Your task to perform on an android device: Show me recent news Image 0: 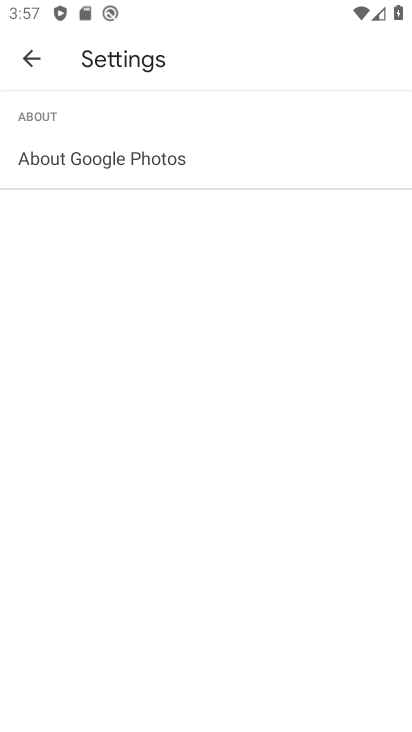
Step 0: press home button
Your task to perform on an android device: Show me recent news Image 1: 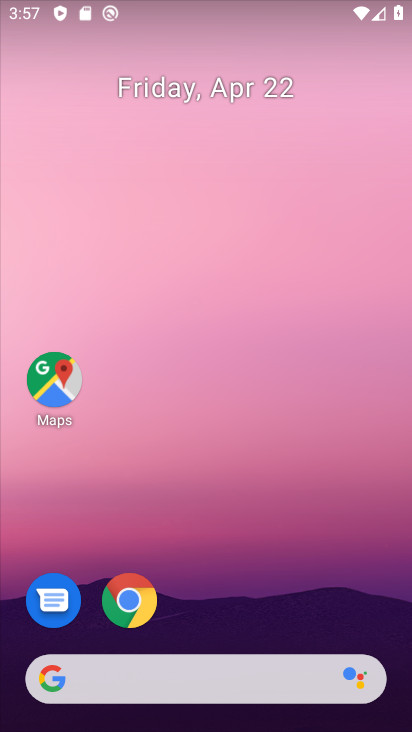
Step 1: drag from (237, 588) to (226, 61)
Your task to perform on an android device: Show me recent news Image 2: 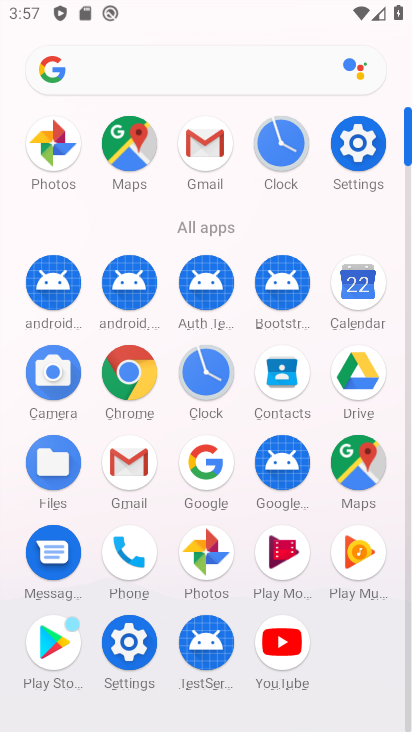
Step 2: click (52, 142)
Your task to perform on an android device: Show me recent news Image 3: 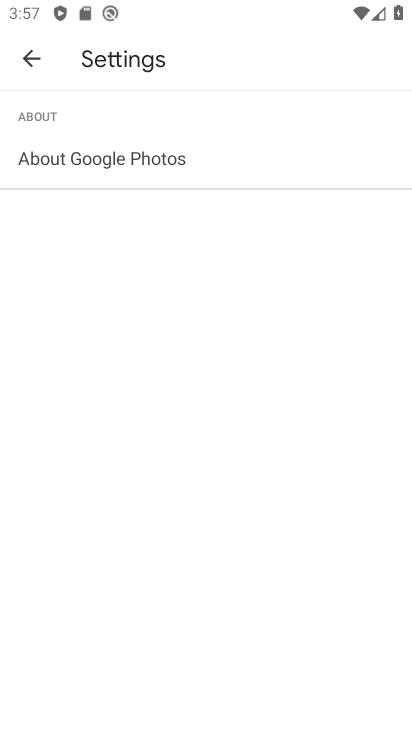
Step 3: press back button
Your task to perform on an android device: Show me recent news Image 4: 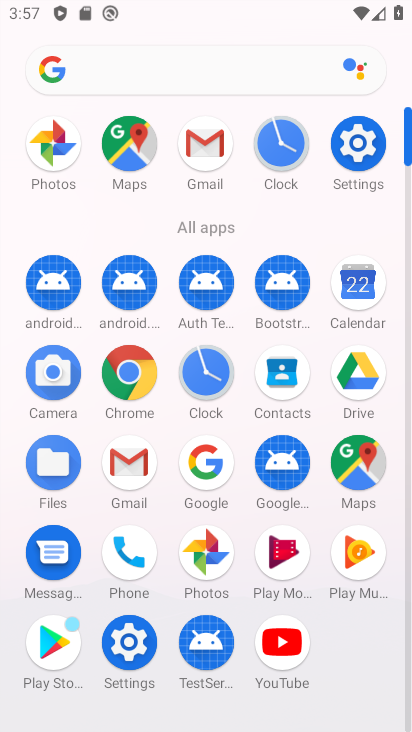
Step 4: click (55, 144)
Your task to perform on an android device: Show me recent news Image 5: 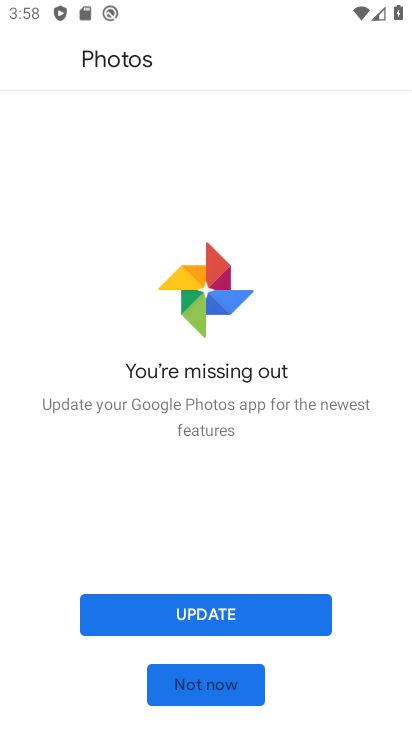
Step 5: click (209, 611)
Your task to perform on an android device: Show me recent news Image 6: 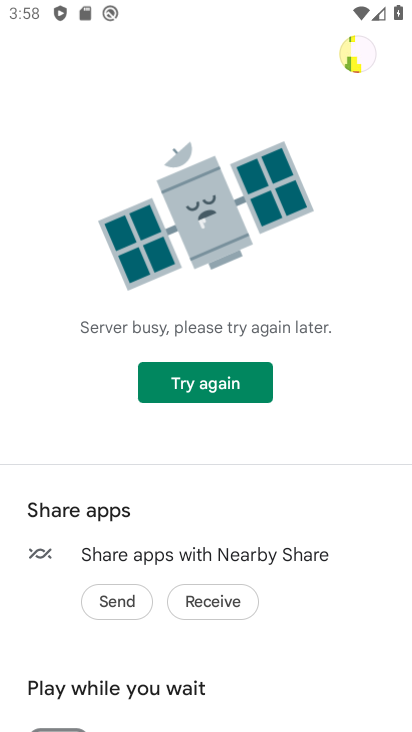
Step 6: click (186, 368)
Your task to perform on an android device: Show me recent news Image 7: 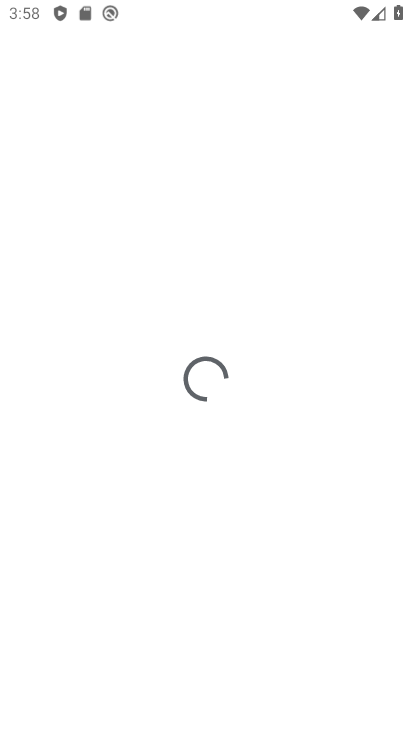
Step 7: click (196, 385)
Your task to perform on an android device: Show me recent news Image 8: 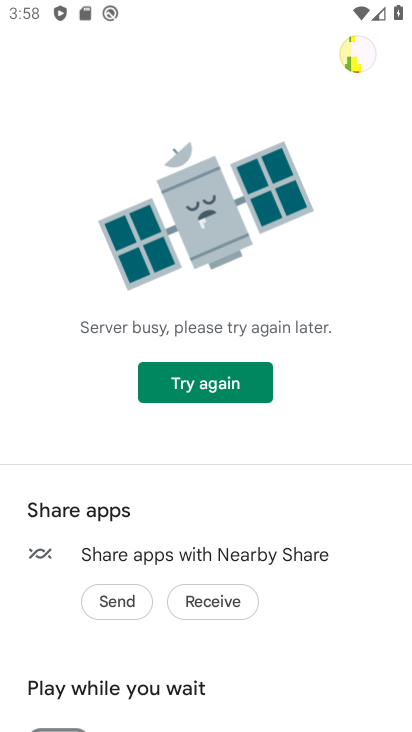
Step 8: click (196, 385)
Your task to perform on an android device: Show me recent news Image 9: 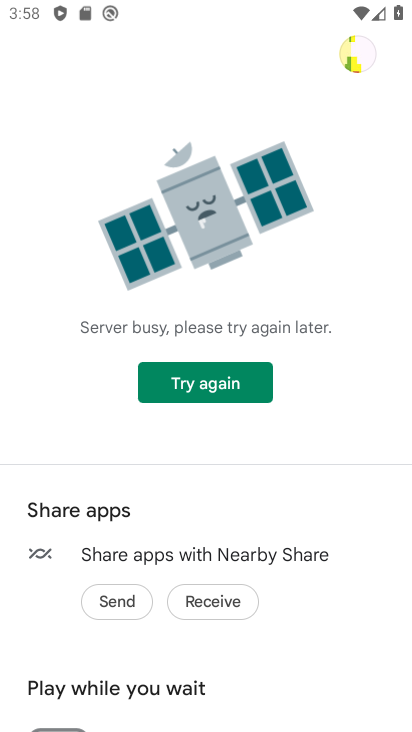
Step 9: click (196, 385)
Your task to perform on an android device: Show me recent news Image 10: 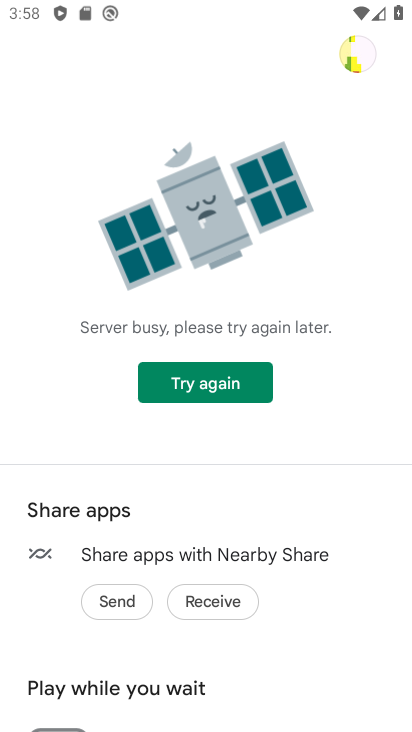
Step 10: task complete